Your task to perform on an android device: allow cookies in the chrome app Image 0: 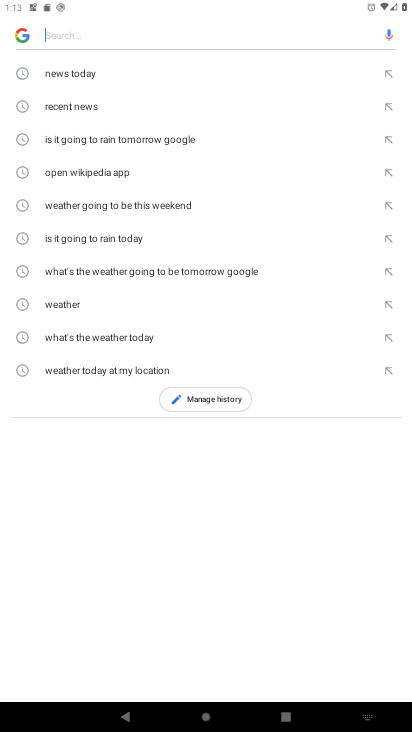
Step 0: press home button
Your task to perform on an android device: allow cookies in the chrome app Image 1: 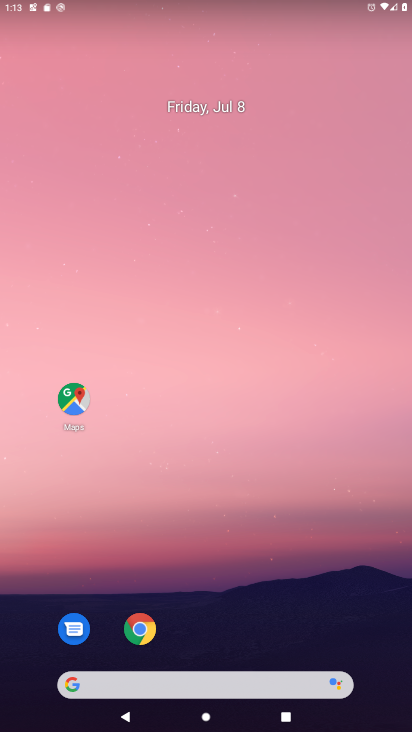
Step 1: click (137, 634)
Your task to perform on an android device: allow cookies in the chrome app Image 2: 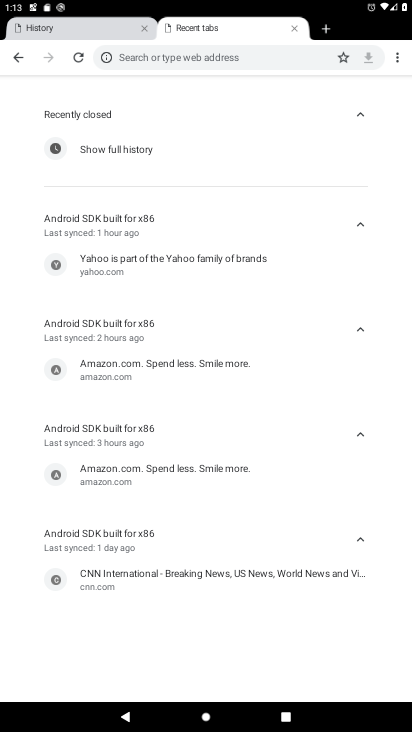
Step 2: click (389, 56)
Your task to perform on an android device: allow cookies in the chrome app Image 3: 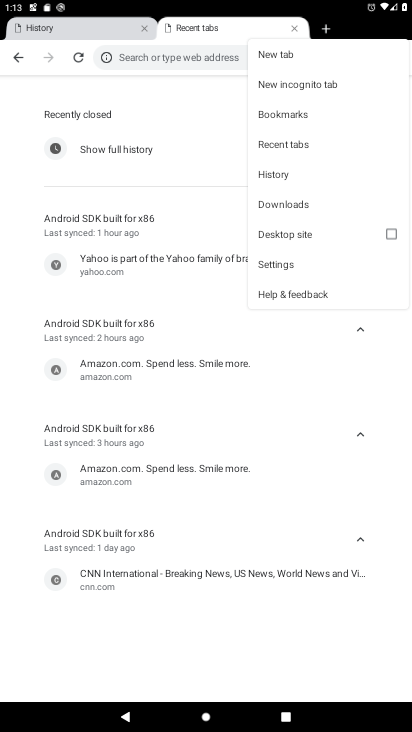
Step 3: click (302, 268)
Your task to perform on an android device: allow cookies in the chrome app Image 4: 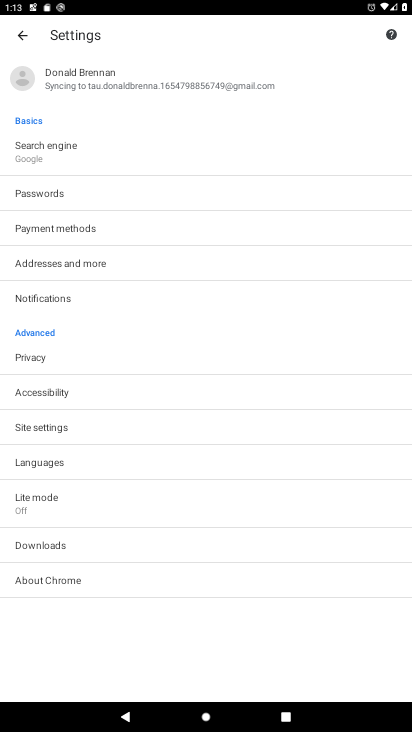
Step 4: click (61, 422)
Your task to perform on an android device: allow cookies in the chrome app Image 5: 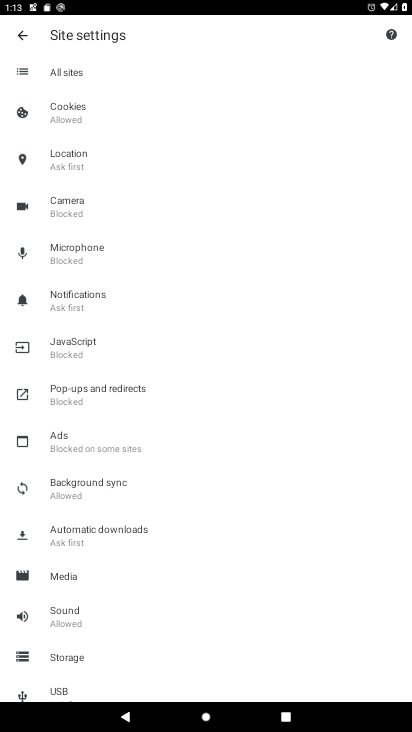
Step 5: click (142, 109)
Your task to perform on an android device: allow cookies in the chrome app Image 6: 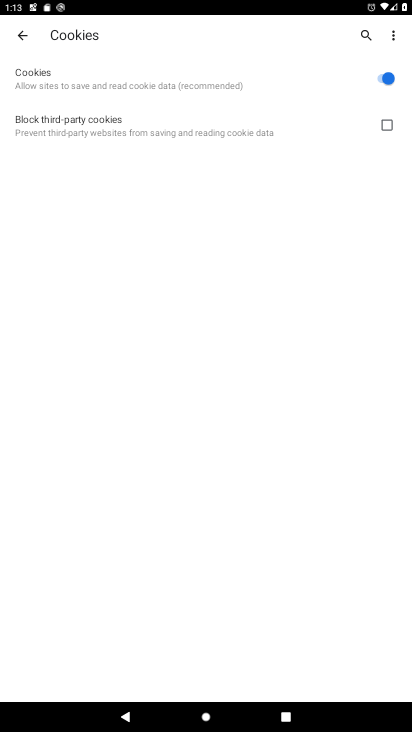
Step 6: task complete